Your task to perform on an android device: turn off priority inbox in the gmail app Image 0: 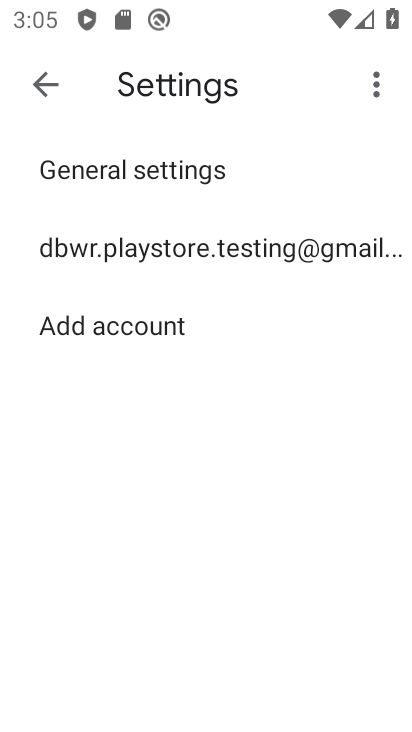
Step 0: click (121, 243)
Your task to perform on an android device: turn off priority inbox in the gmail app Image 1: 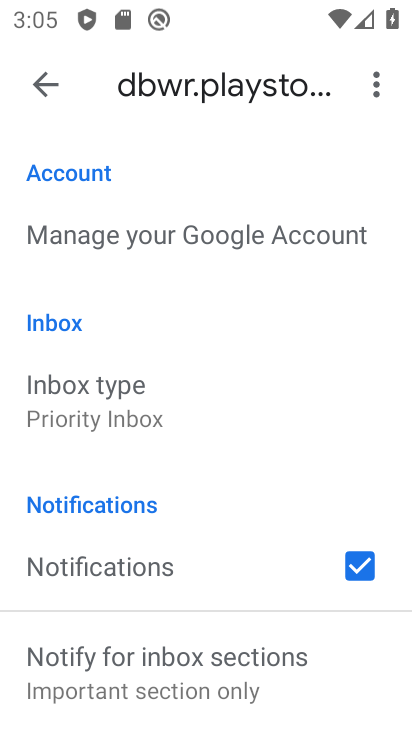
Step 1: click (147, 395)
Your task to perform on an android device: turn off priority inbox in the gmail app Image 2: 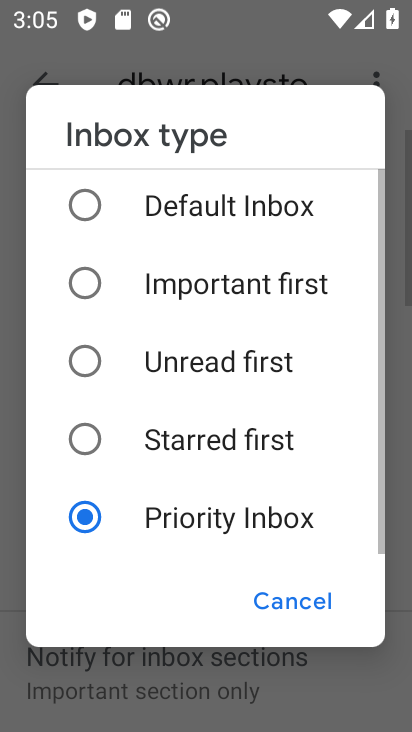
Step 2: click (160, 290)
Your task to perform on an android device: turn off priority inbox in the gmail app Image 3: 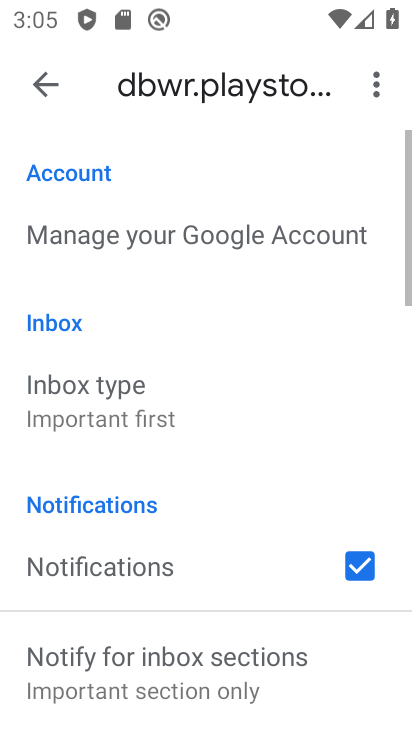
Step 3: task complete